Your task to perform on an android device: Open Amazon Image 0: 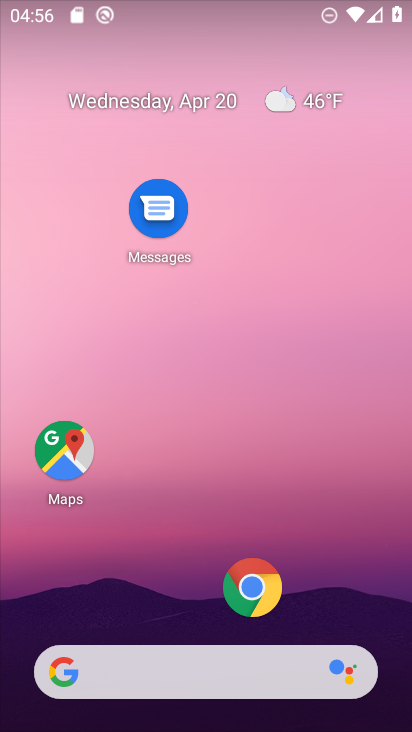
Step 0: click (240, 593)
Your task to perform on an android device: Open Amazon Image 1: 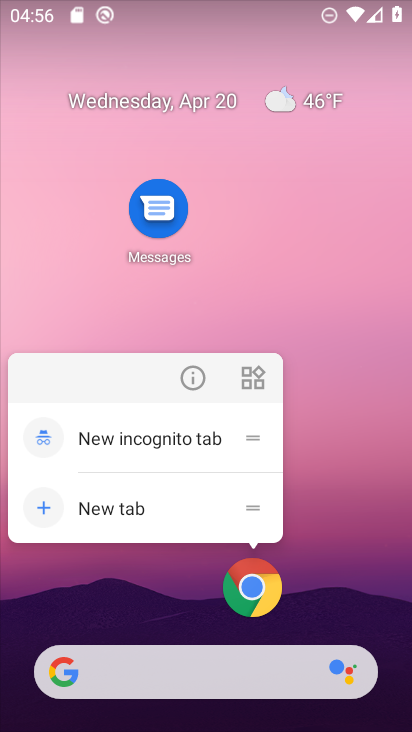
Step 1: click (256, 597)
Your task to perform on an android device: Open Amazon Image 2: 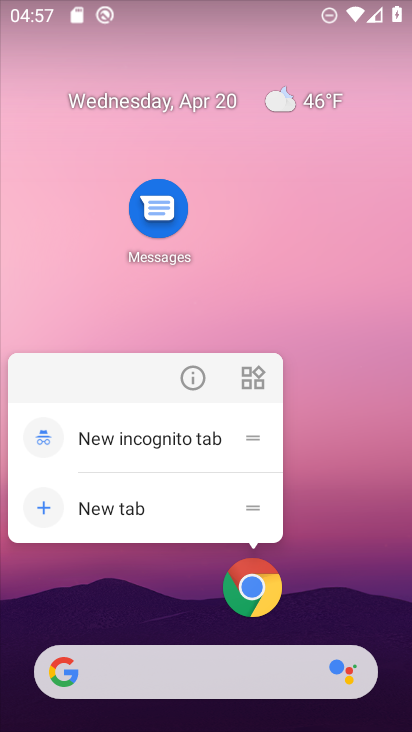
Step 2: click (264, 601)
Your task to perform on an android device: Open Amazon Image 3: 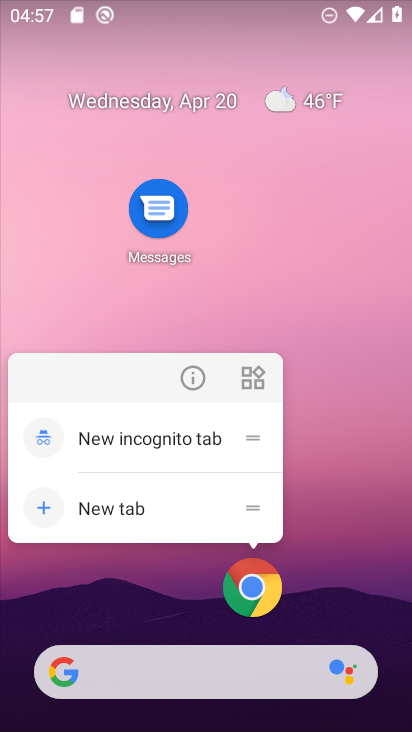
Step 3: click (266, 586)
Your task to perform on an android device: Open Amazon Image 4: 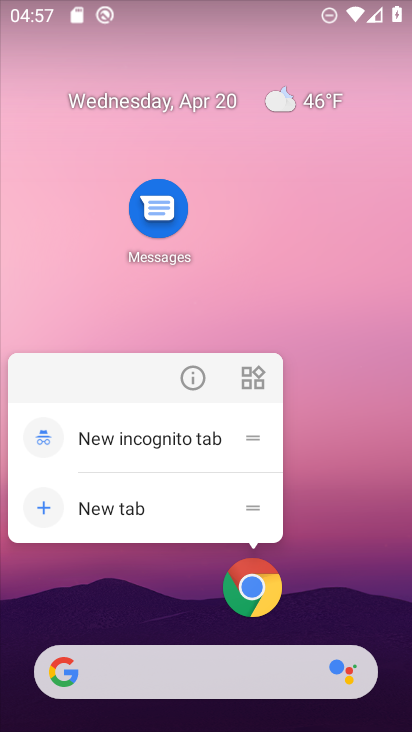
Step 4: click (265, 584)
Your task to perform on an android device: Open Amazon Image 5: 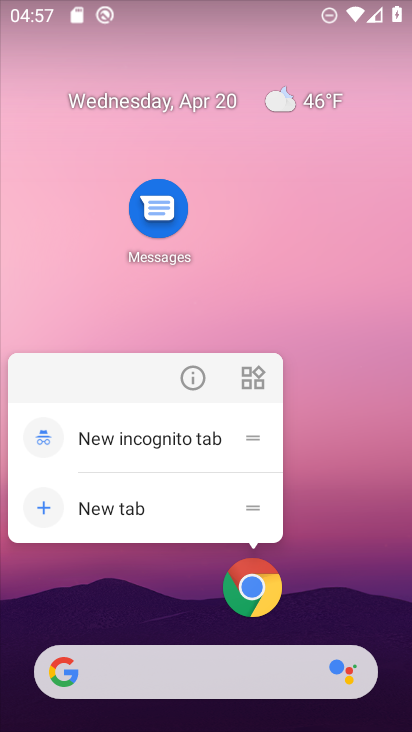
Step 5: click (265, 584)
Your task to perform on an android device: Open Amazon Image 6: 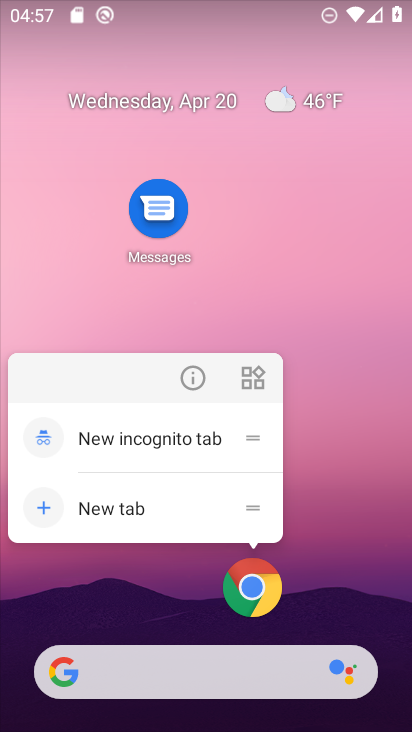
Step 6: click (240, 577)
Your task to perform on an android device: Open Amazon Image 7: 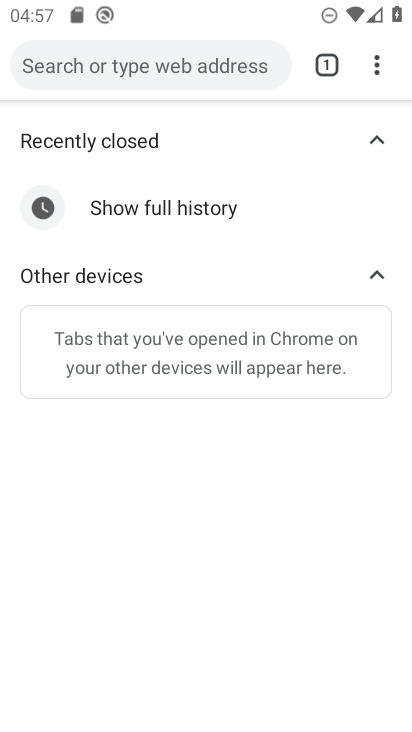
Step 7: click (325, 65)
Your task to perform on an android device: Open Amazon Image 8: 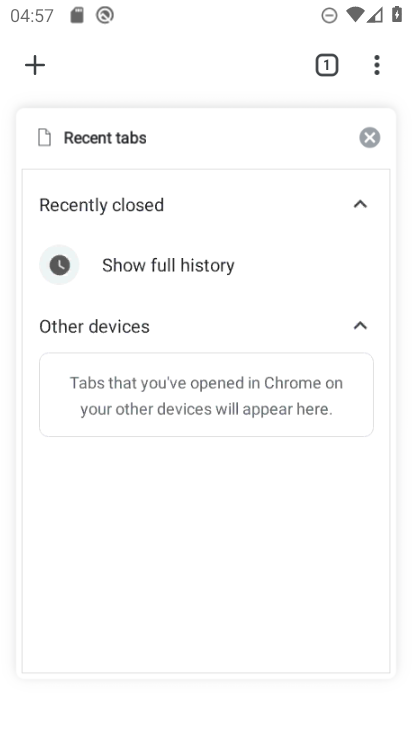
Step 8: click (34, 73)
Your task to perform on an android device: Open Amazon Image 9: 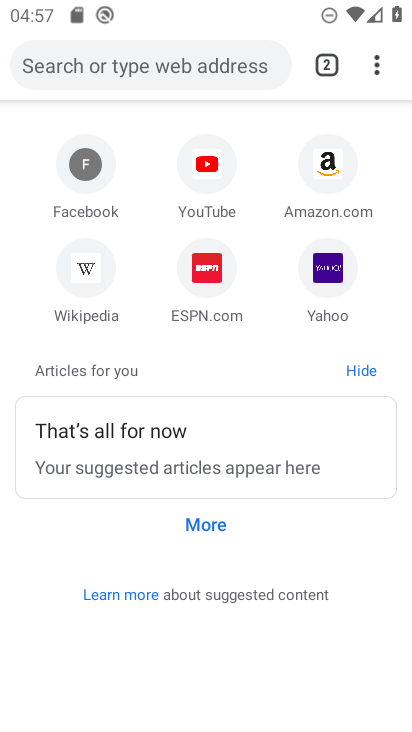
Step 9: click (328, 181)
Your task to perform on an android device: Open Amazon Image 10: 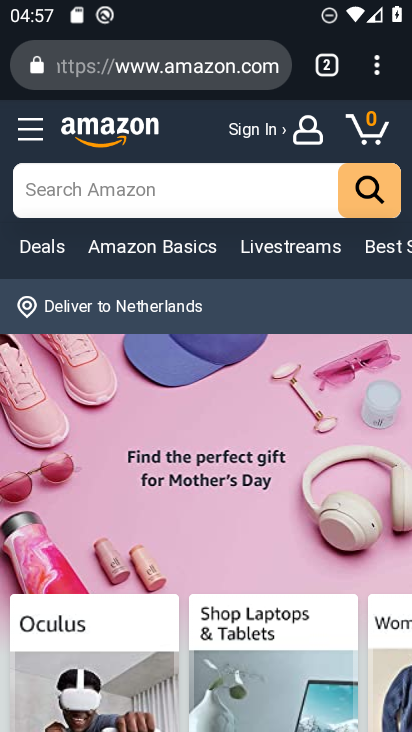
Step 10: task complete